Your task to perform on an android device: Do I have any events today? Image 0: 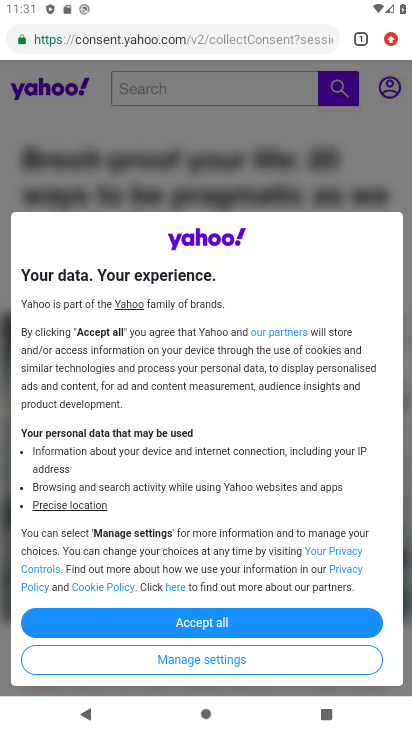
Step 0: press back button
Your task to perform on an android device: Do I have any events today? Image 1: 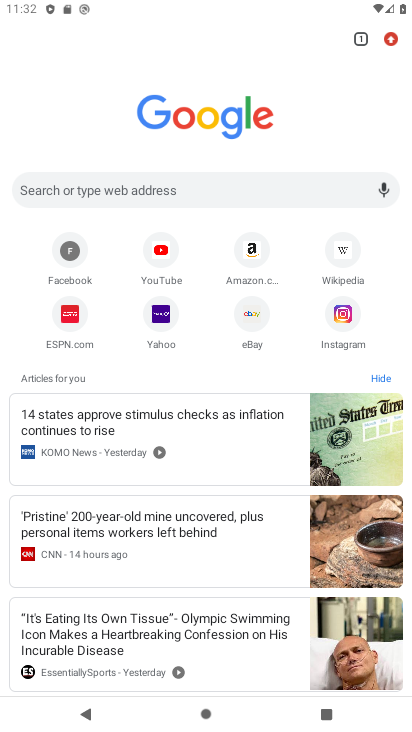
Step 1: press back button
Your task to perform on an android device: Do I have any events today? Image 2: 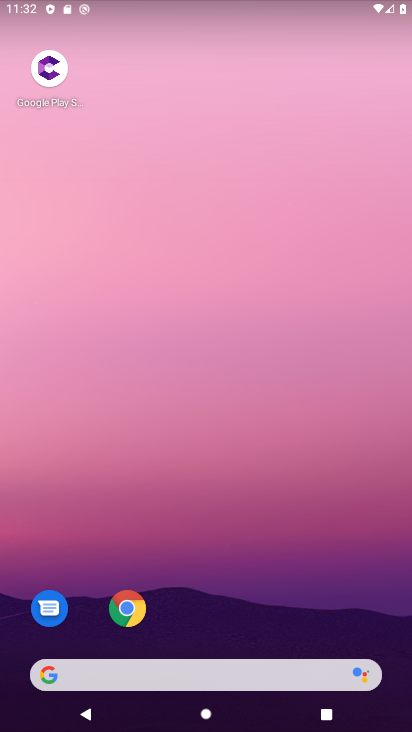
Step 2: drag from (192, 564) to (263, 2)
Your task to perform on an android device: Do I have any events today? Image 3: 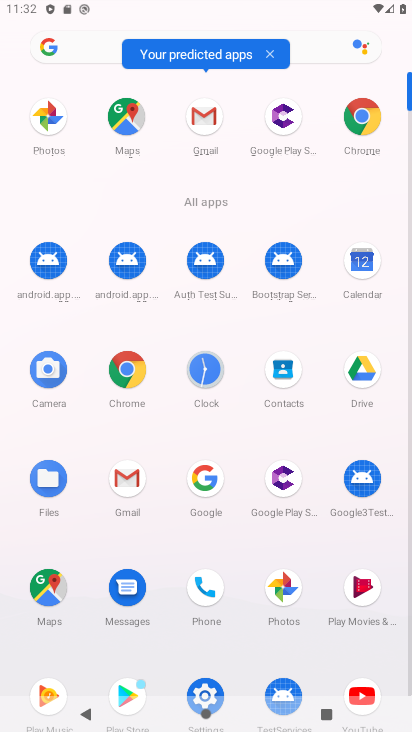
Step 3: click (361, 280)
Your task to perform on an android device: Do I have any events today? Image 4: 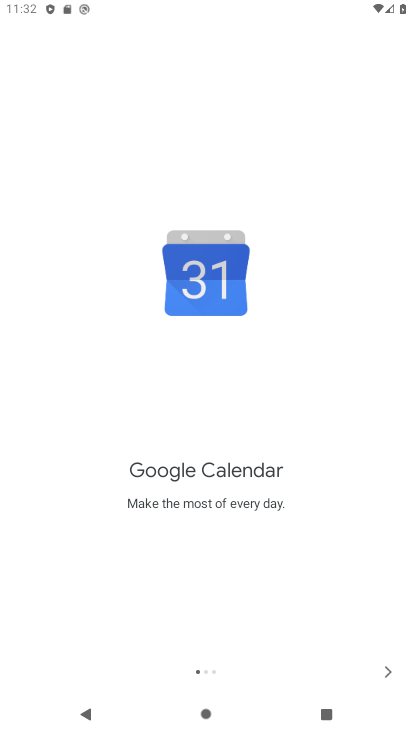
Step 4: click (371, 678)
Your task to perform on an android device: Do I have any events today? Image 5: 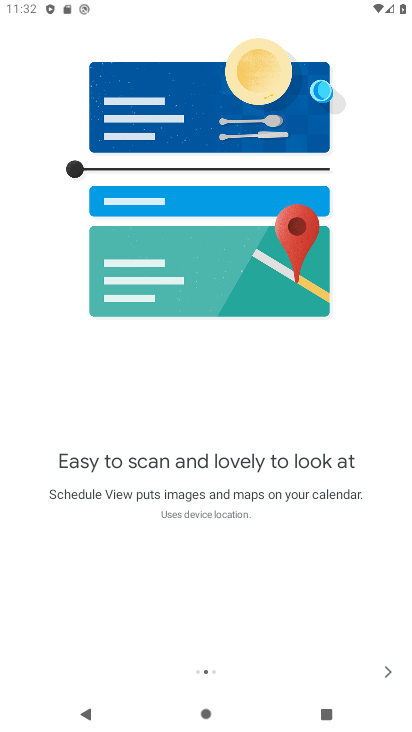
Step 5: click (390, 671)
Your task to perform on an android device: Do I have any events today? Image 6: 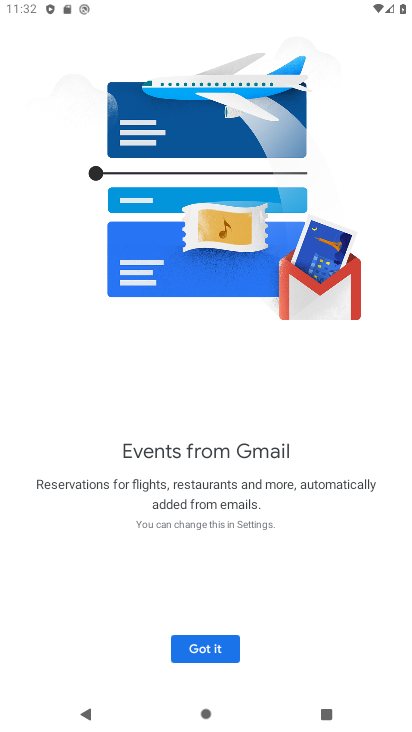
Step 6: click (207, 646)
Your task to perform on an android device: Do I have any events today? Image 7: 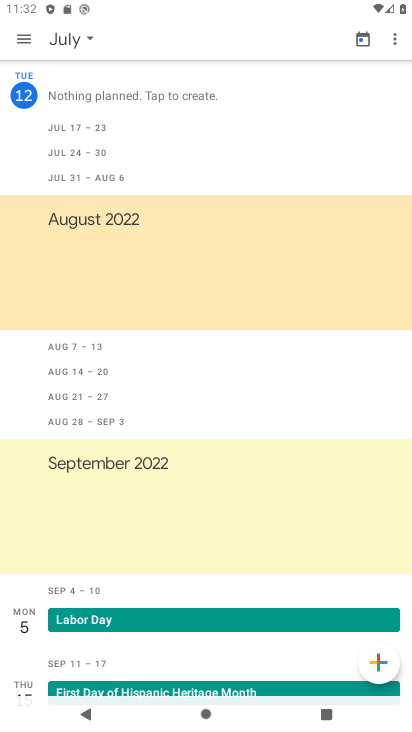
Step 7: task complete